Your task to perform on an android device: empty trash in google photos Image 0: 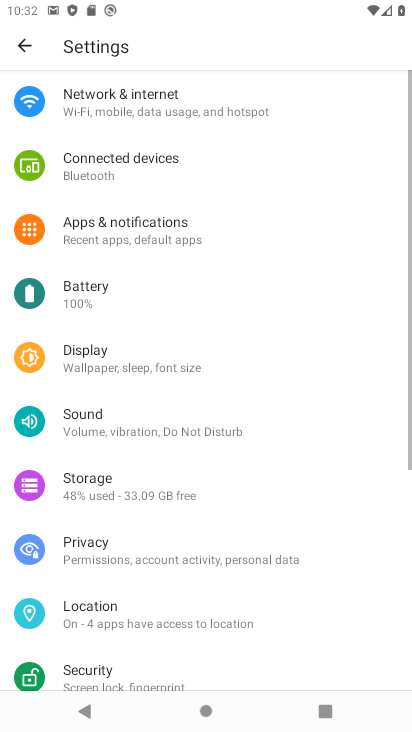
Step 0: press home button
Your task to perform on an android device: empty trash in google photos Image 1: 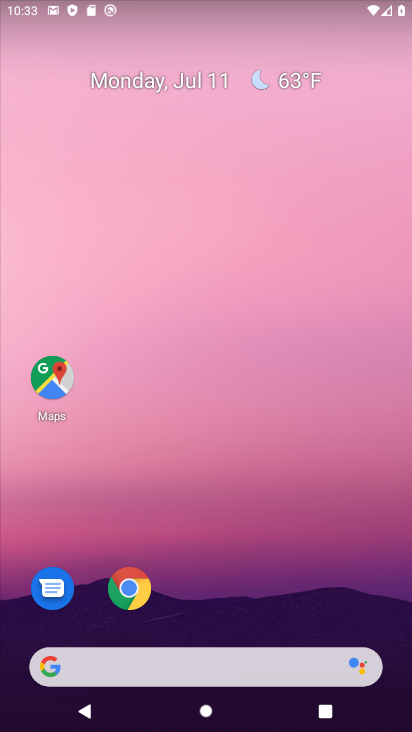
Step 1: drag from (231, 730) to (210, 293)
Your task to perform on an android device: empty trash in google photos Image 2: 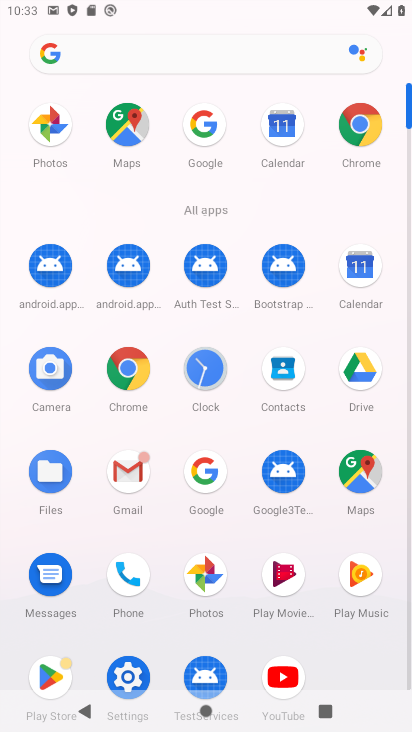
Step 2: click (201, 573)
Your task to perform on an android device: empty trash in google photos Image 3: 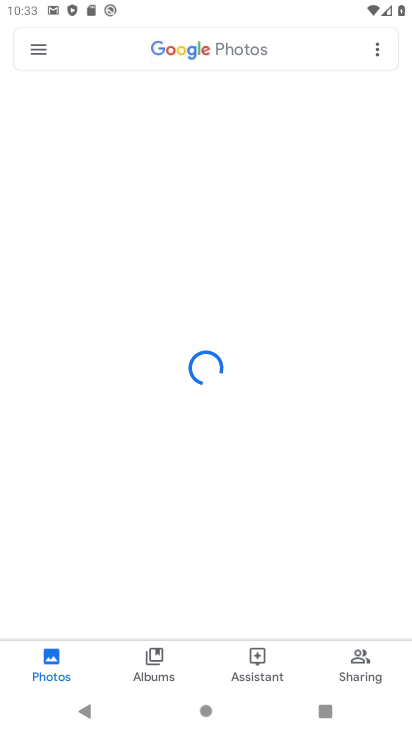
Step 3: click (37, 50)
Your task to perform on an android device: empty trash in google photos Image 4: 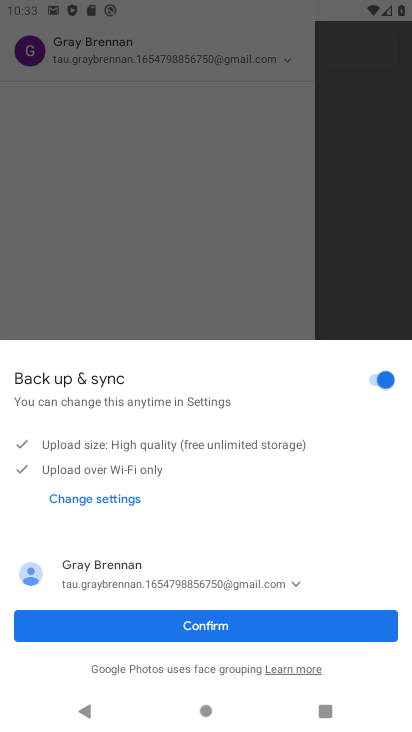
Step 4: click (213, 631)
Your task to perform on an android device: empty trash in google photos Image 5: 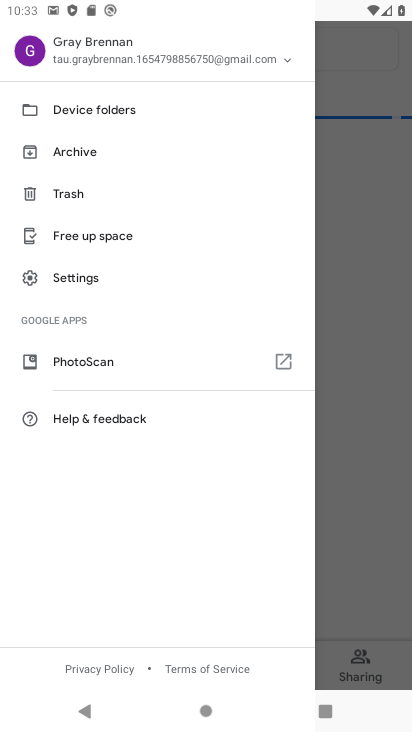
Step 5: click (65, 190)
Your task to perform on an android device: empty trash in google photos Image 6: 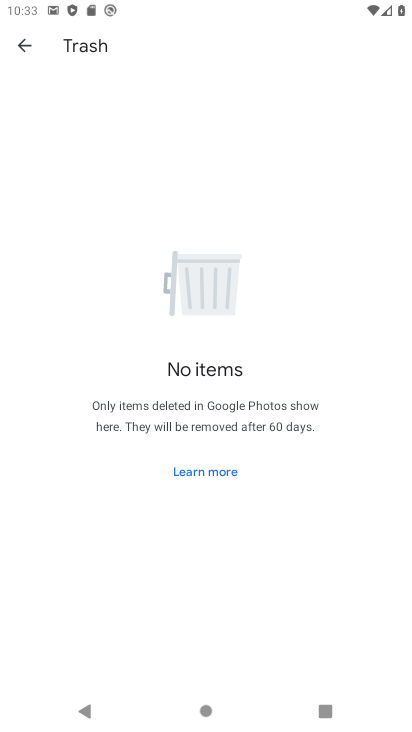
Step 6: task complete